Your task to perform on an android device: Open notification settings Image 0: 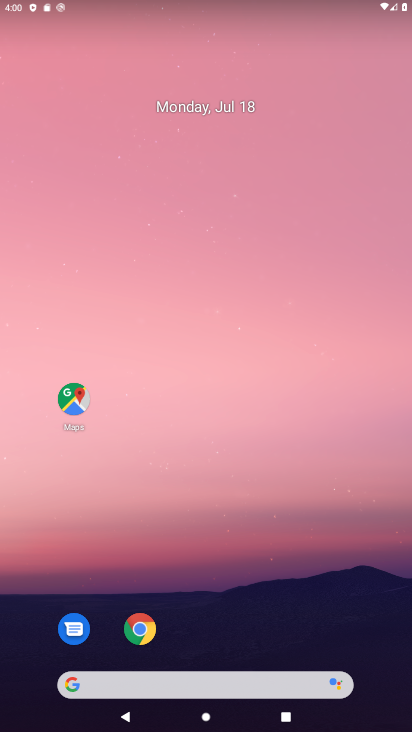
Step 0: drag from (205, 670) to (293, 188)
Your task to perform on an android device: Open notification settings Image 1: 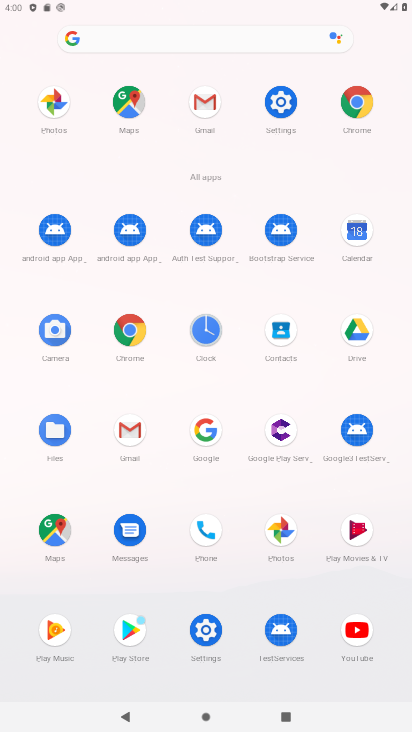
Step 1: click (197, 637)
Your task to perform on an android device: Open notification settings Image 2: 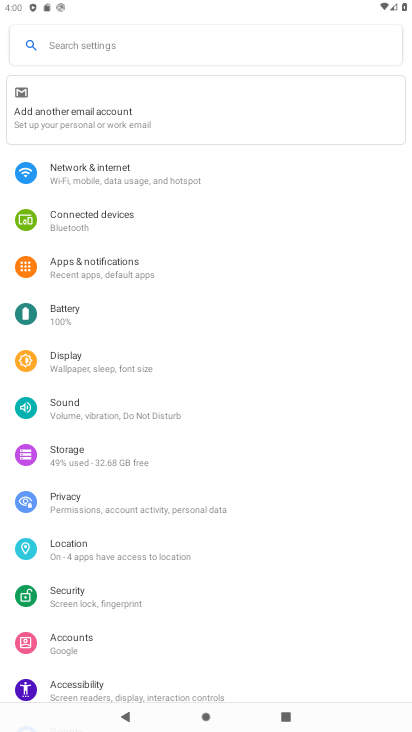
Step 2: click (145, 270)
Your task to perform on an android device: Open notification settings Image 3: 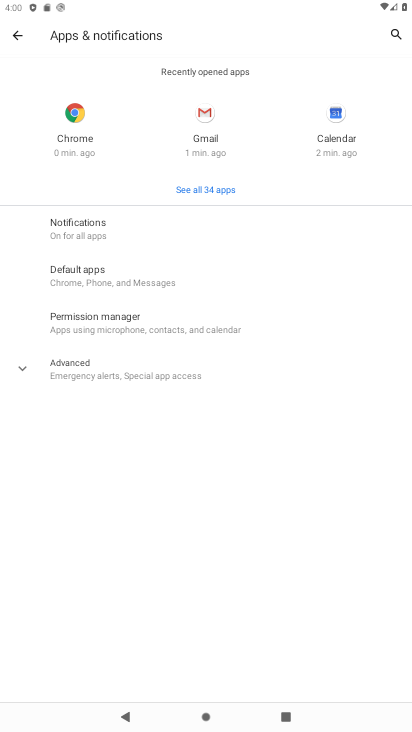
Step 3: click (194, 230)
Your task to perform on an android device: Open notification settings Image 4: 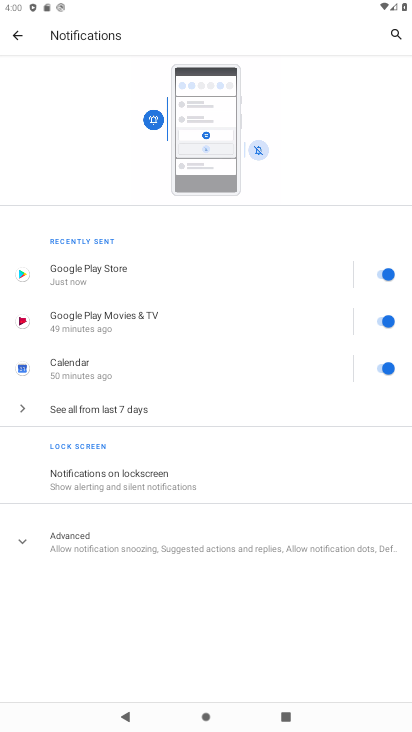
Step 4: task complete